Your task to perform on an android device: Open CNN.com Image 0: 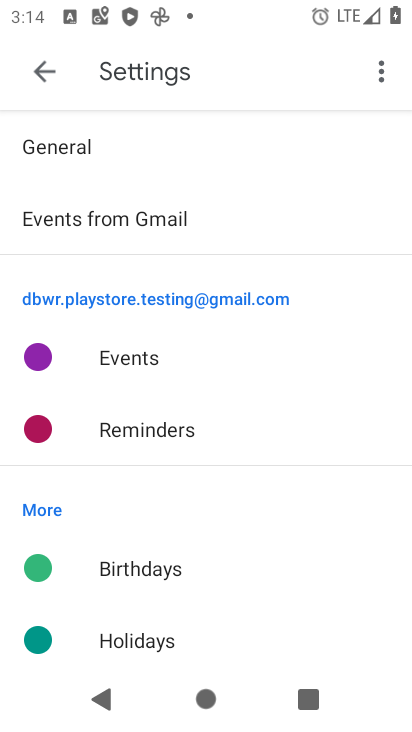
Step 0: press home button
Your task to perform on an android device: Open CNN.com Image 1: 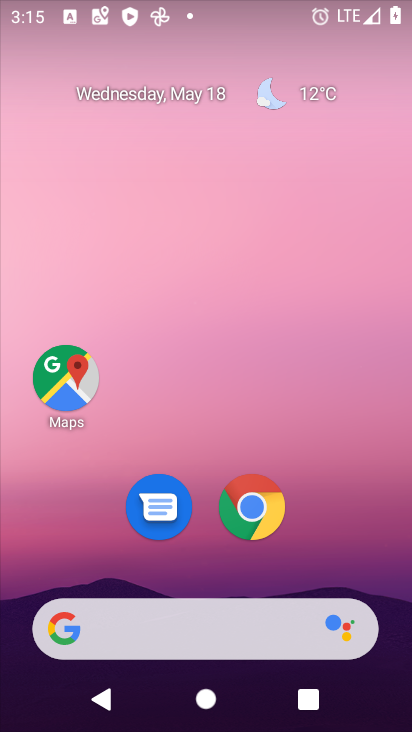
Step 1: click (252, 502)
Your task to perform on an android device: Open CNN.com Image 2: 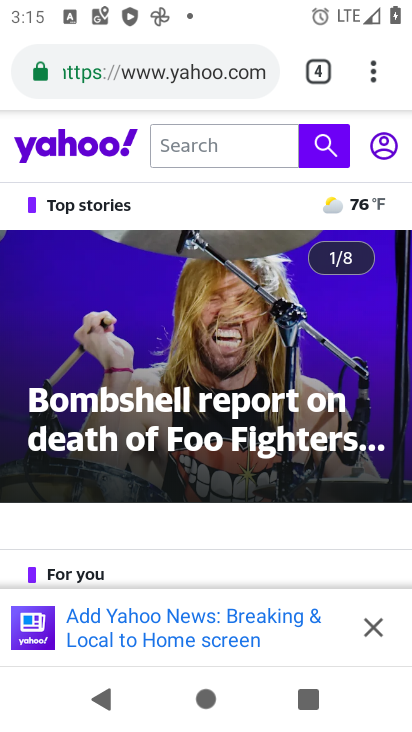
Step 2: click (128, 61)
Your task to perform on an android device: Open CNN.com Image 3: 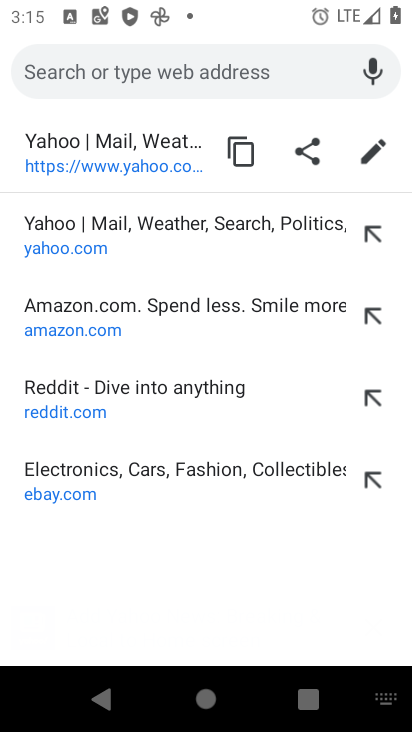
Step 3: type "cnn.com"
Your task to perform on an android device: Open CNN.com Image 4: 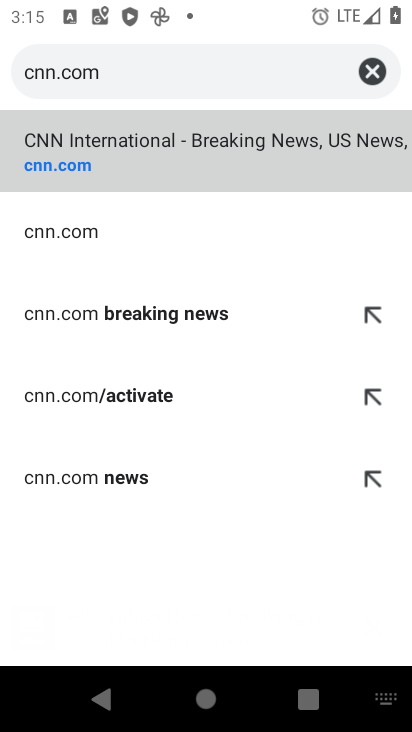
Step 4: click (83, 136)
Your task to perform on an android device: Open CNN.com Image 5: 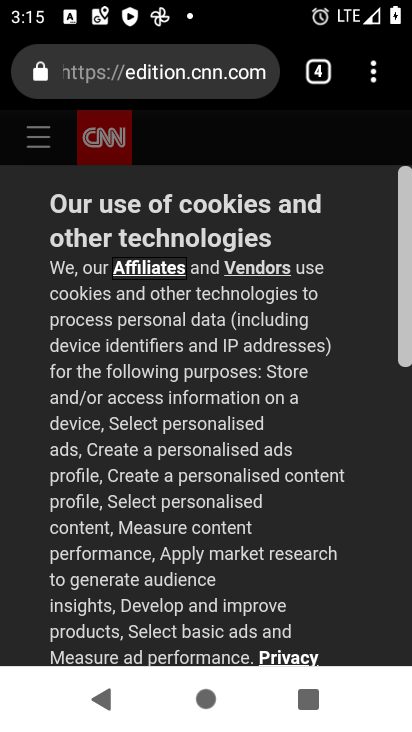
Step 5: task complete